Your task to perform on an android device: Go to Android settings Image 0: 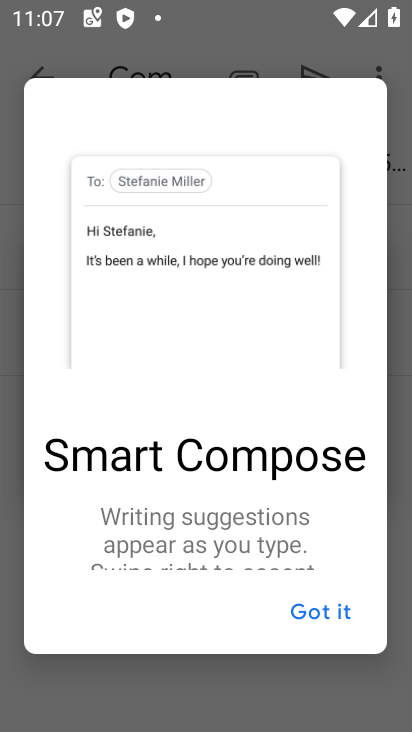
Step 0: press home button
Your task to perform on an android device: Go to Android settings Image 1: 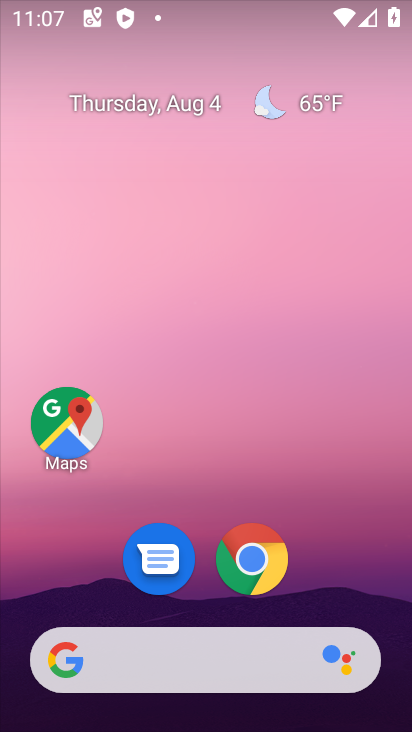
Step 1: drag from (355, 610) to (295, 327)
Your task to perform on an android device: Go to Android settings Image 2: 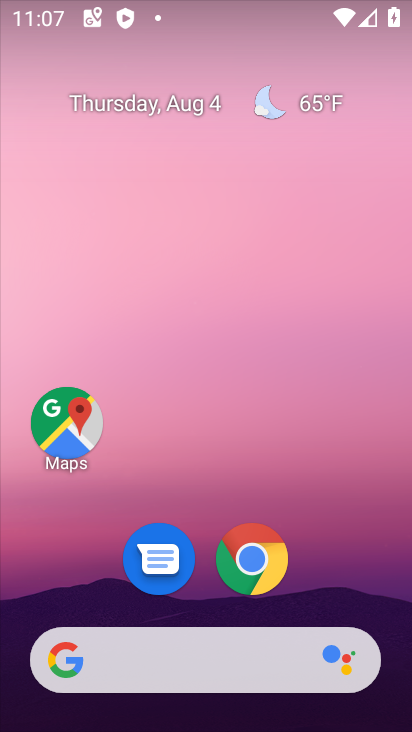
Step 2: drag from (371, 567) to (317, 178)
Your task to perform on an android device: Go to Android settings Image 3: 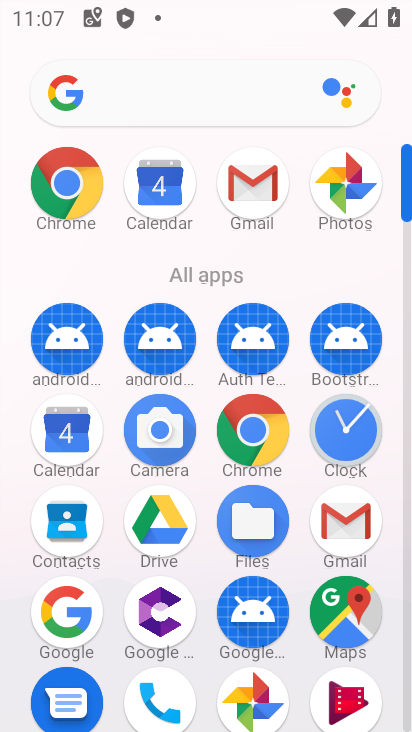
Step 3: drag from (286, 281) to (262, 38)
Your task to perform on an android device: Go to Android settings Image 4: 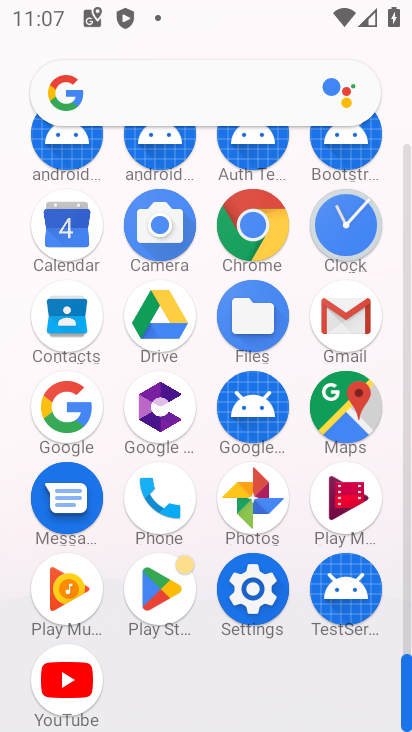
Step 4: click (261, 613)
Your task to perform on an android device: Go to Android settings Image 5: 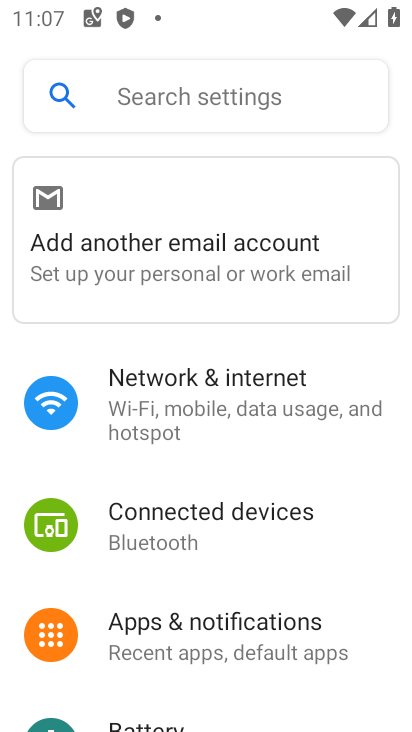
Step 5: task complete